Your task to perform on an android device: move a message to another label in the gmail app Image 0: 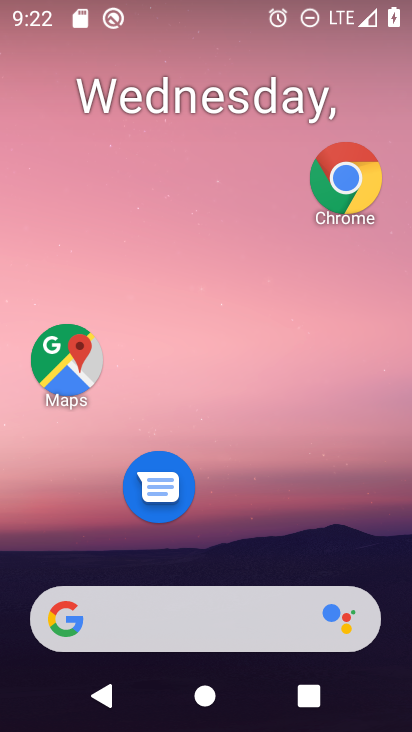
Step 0: drag from (228, 603) to (229, 222)
Your task to perform on an android device: move a message to another label in the gmail app Image 1: 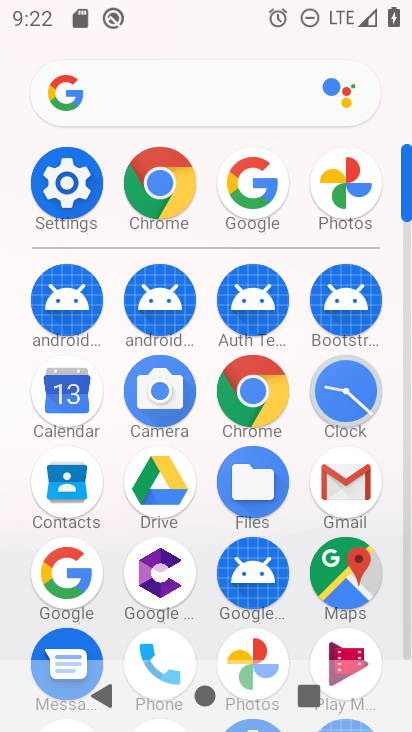
Step 1: click (334, 495)
Your task to perform on an android device: move a message to another label in the gmail app Image 2: 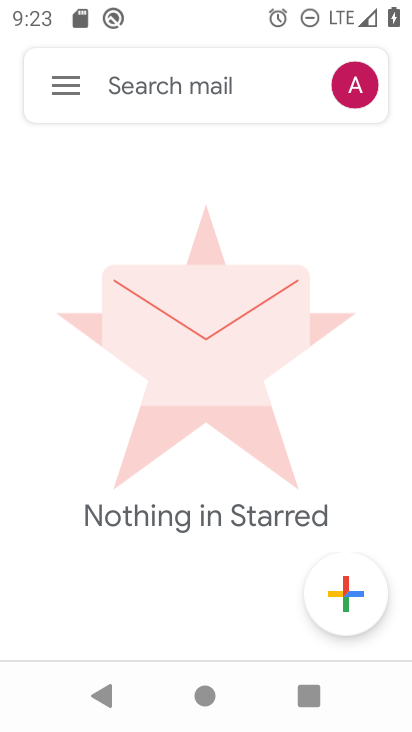
Step 2: click (66, 98)
Your task to perform on an android device: move a message to another label in the gmail app Image 3: 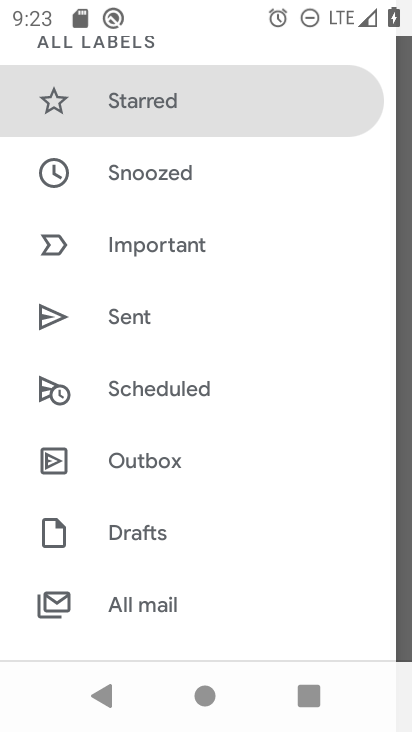
Step 3: drag from (161, 465) to (197, 137)
Your task to perform on an android device: move a message to another label in the gmail app Image 4: 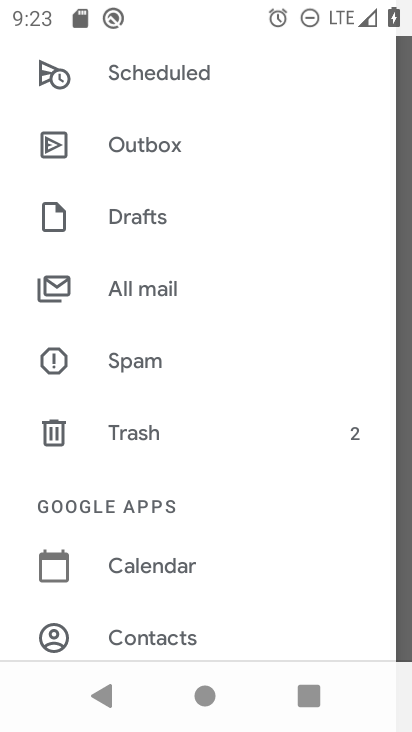
Step 4: click (155, 294)
Your task to perform on an android device: move a message to another label in the gmail app Image 5: 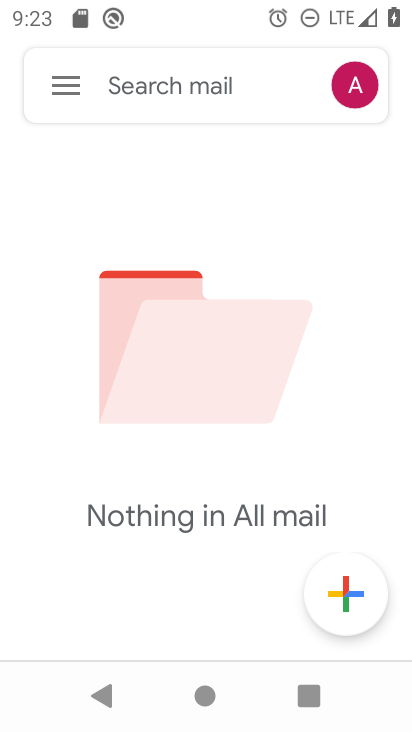
Step 5: task complete